Your task to perform on an android device: turn on wifi Image 0: 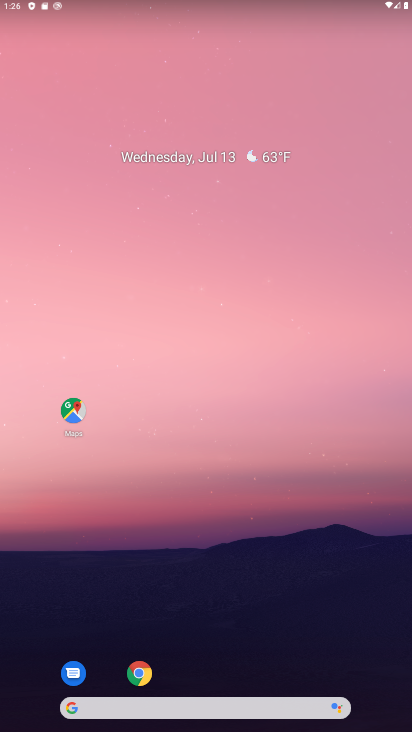
Step 0: drag from (253, 599) to (199, 112)
Your task to perform on an android device: turn on wifi Image 1: 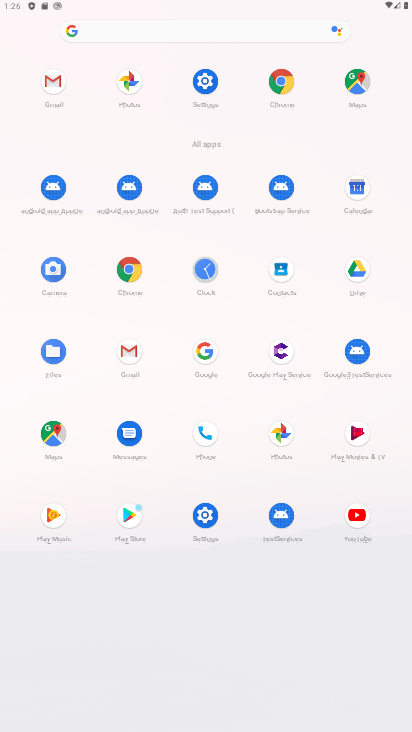
Step 1: click (198, 81)
Your task to perform on an android device: turn on wifi Image 2: 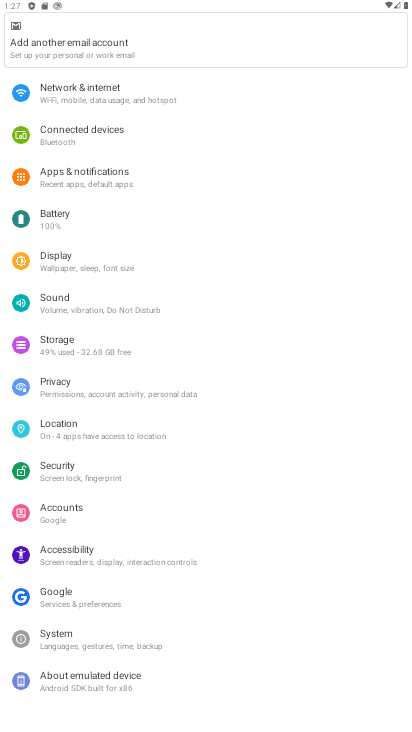
Step 2: click (118, 94)
Your task to perform on an android device: turn on wifi Image 3: 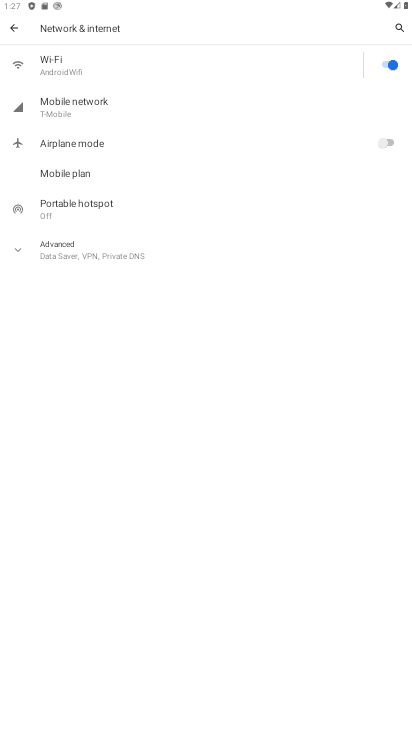
Step 3: task complete